Your task to perform on an android device: Search for "usb-a" on costco.com, select the first entry, and add it to the cart. Image 0: 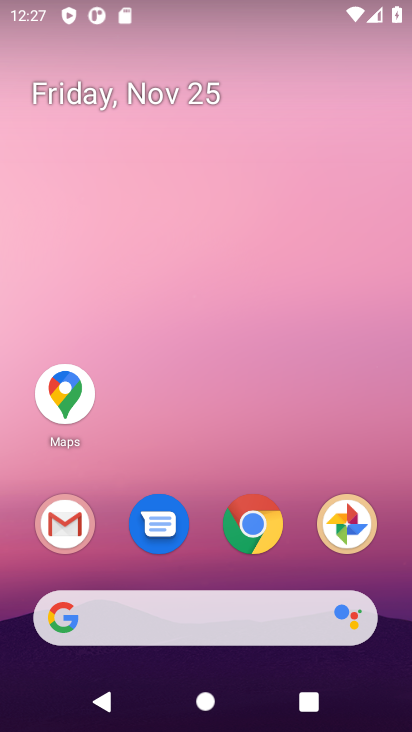
Step 0: click (240, 519)
Your task to perform on an android device: Search for "usb-a" on costco.com, select the first entry, and add it to the cart. Image 1: 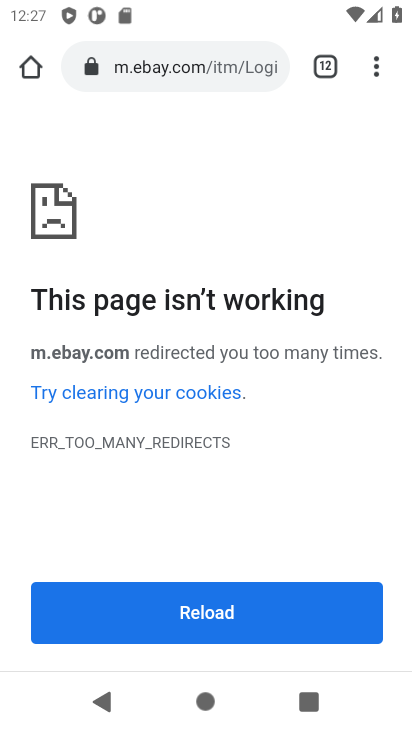
Step 1: click (158, 62)
Your task to perform on an android device: Search for "usb-a" on costco.com, select the first entry, and add it to the cart. Image 2: 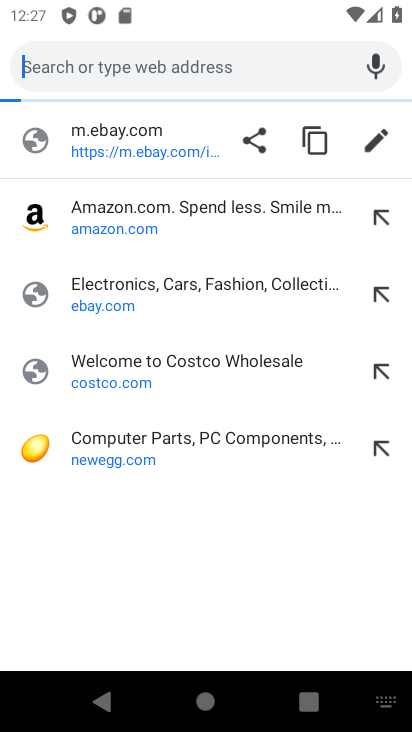
Step 2: click (112, 383)
Your task to perform on an android device: Search for "usb-a" on costco.com, select the first entry, and add it to the cart. Image 3: 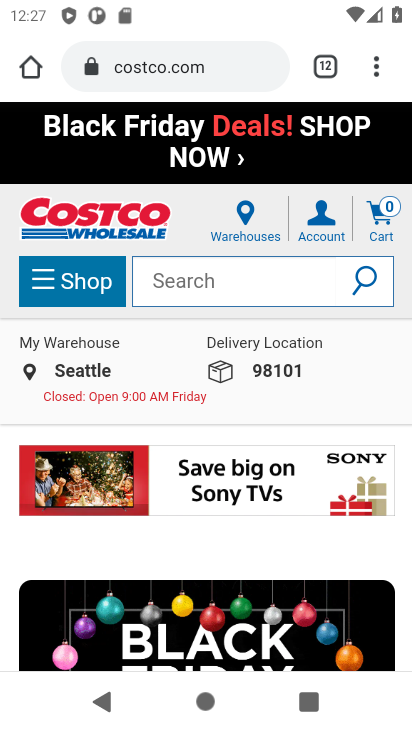
Step 3: click (226, 288)
Your task to perform on an android device: Search for "usb-a" on costco.com, select the first entry, and add it to the cart. Image 4: 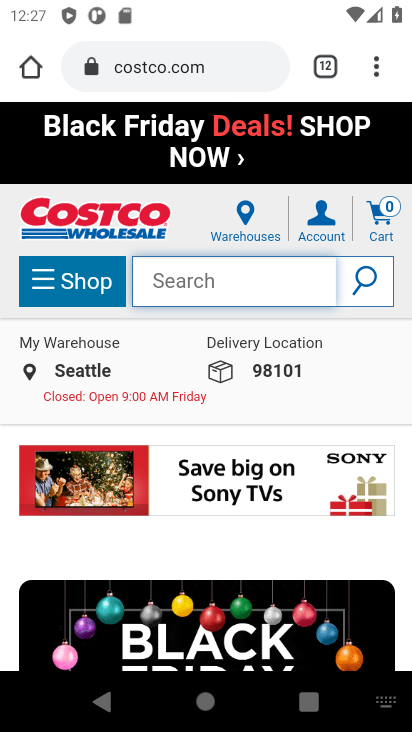
Step 4: type "usb-a"
Your task to perform on an android device: Search for "usb-a" on costco.com, select the first entry, and add it to the cart. Image 5: 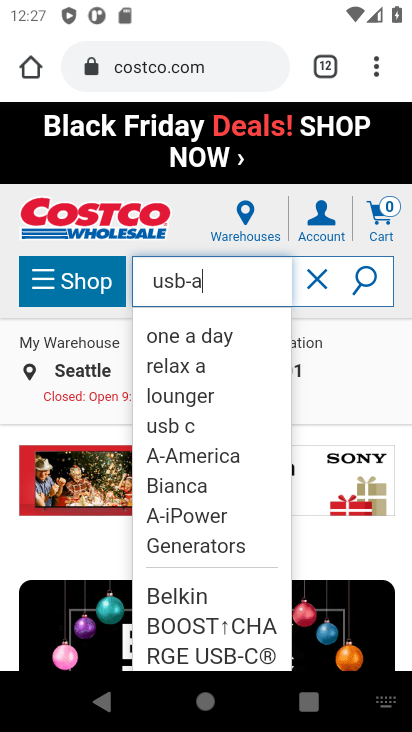
Step 5: click (368, 281)
Your task to perform on an android device: Search for "usb-a" on costco.com, select the first entry, and add it to the cart. Image 6: 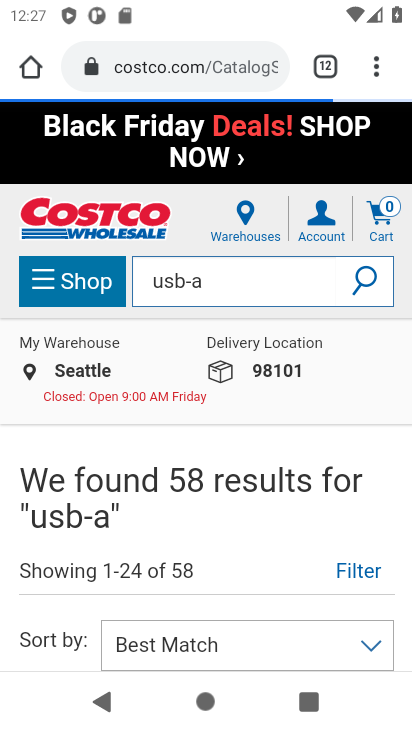
Step 6: task complete